Your task to perform on an android device: Open ESPN.com Image 0: 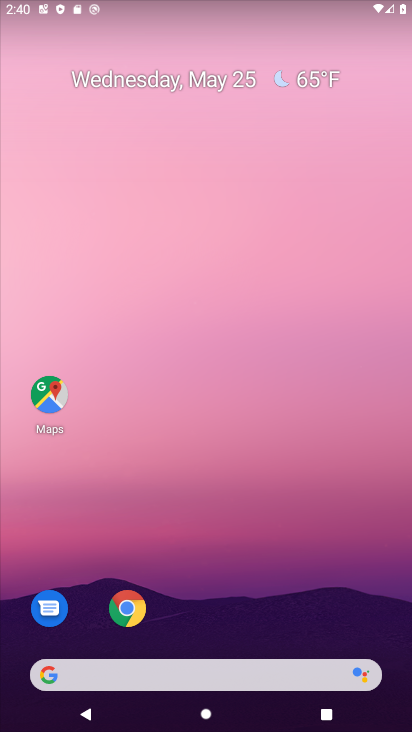
Step 0: click (126, 609)
Your task to perform on an android device: Open ESPN.com Image 1: 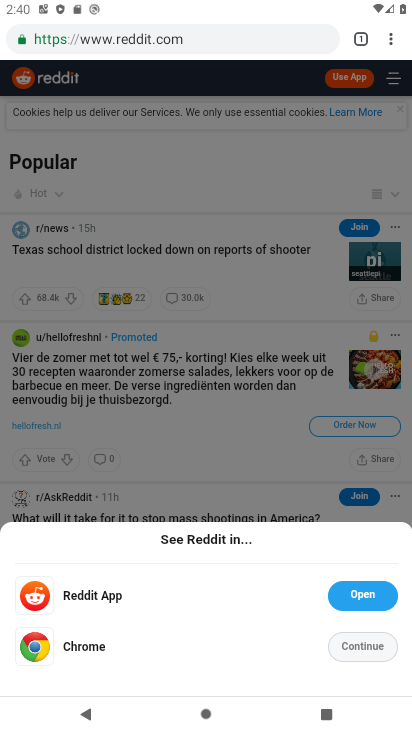
Step 1: click (117, 41)
Your task to perform on an android device: Open ESPN.com Image 2: 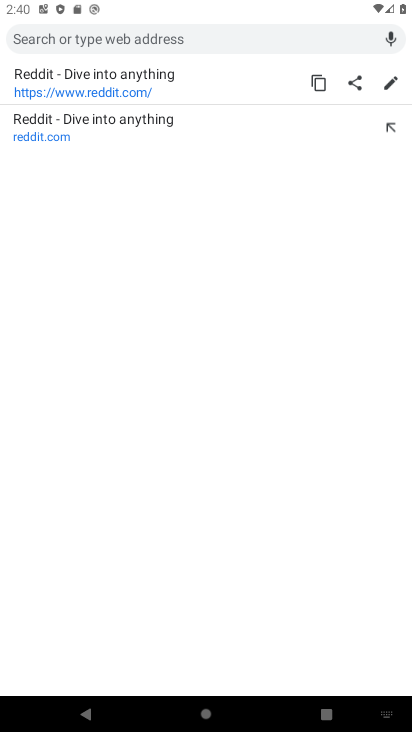
Step 2: type "espn.com"
Your task to perform on an android device: Open ESPN.com Image 3: 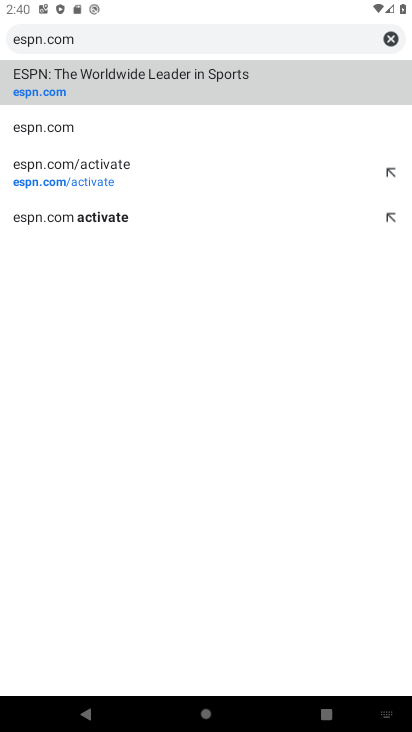
Step 3: click (61, 92)
Your task to perform on an android device: Open ESPN.com Image 4: 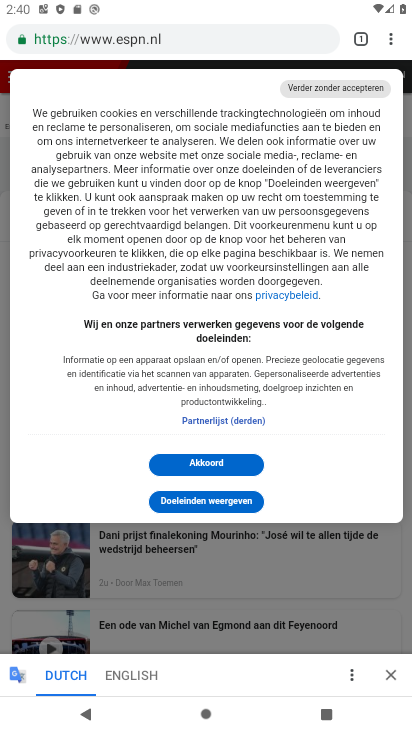
Step 4: task complete